Your task to perform on an android device: Search for "panasonic triple a" on costco.com, select the first entry, and add it to the cart. Image 0: 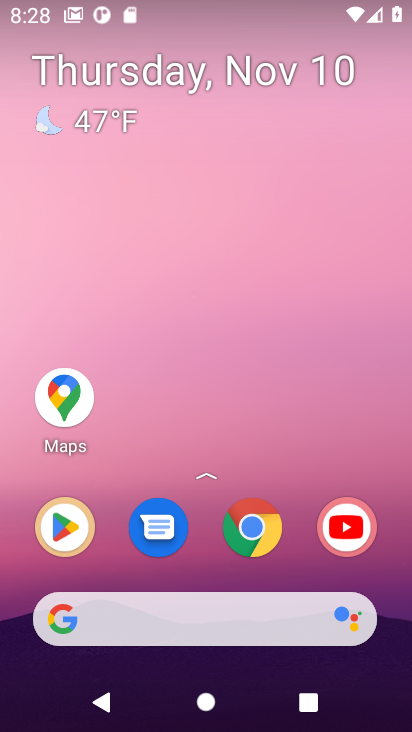
Step 0: drag from (165, 607) to (73, 13)
Your task to perform on an android device: Search for "panasonic triple a" on costco.com, select the first entry, and add it to the cart. Image 1: 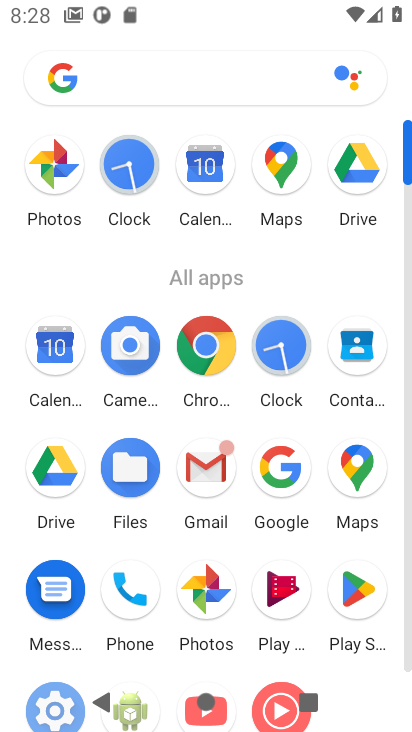
Step 1: click (207, 338)
Your task to perform on an android device: Search for "panasonic triple a" on costco.com, select the first entry, and add it to the cart. Image 2: 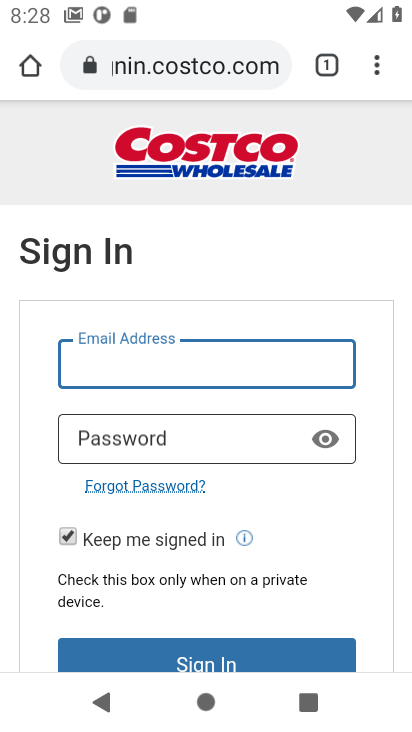
Step 2: press back button
Your task to perform on an android device: Search for "panasonic triple a" on costco.com, select the first entry, and add it to the cart. Image 3: 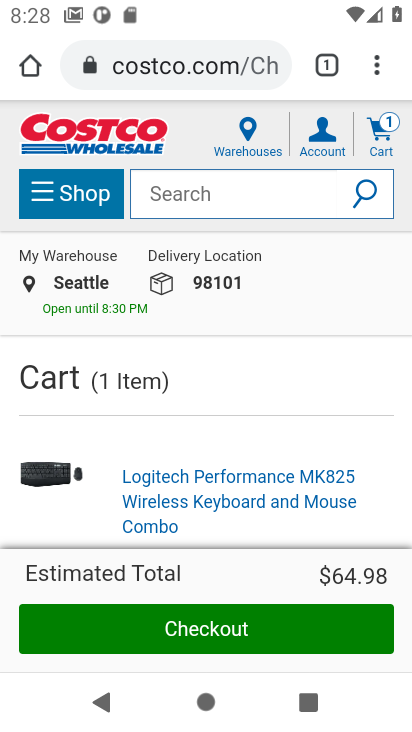
Step 3: click (199, 176)
Your task to perform on an android device: Search for "panasonic triple a" on costco.com, select the first entry, and add it to the cart. Image 4: 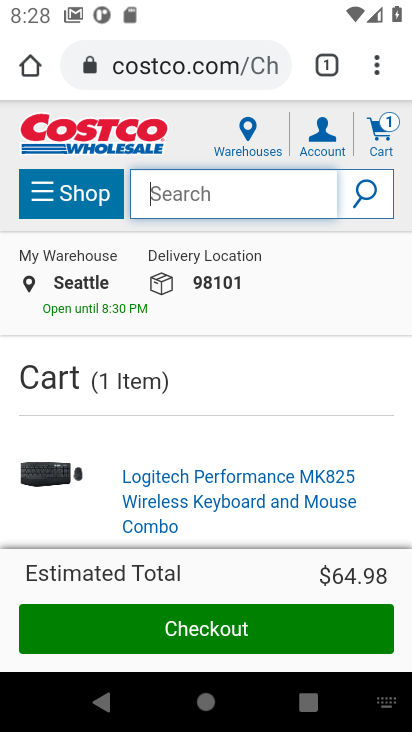
Step 4: type "panasonic triple a"
Your task to perform on an android device: Search for "panasonic triple a" on costco.com, select the first entry, and add it to the cart. Image 5: 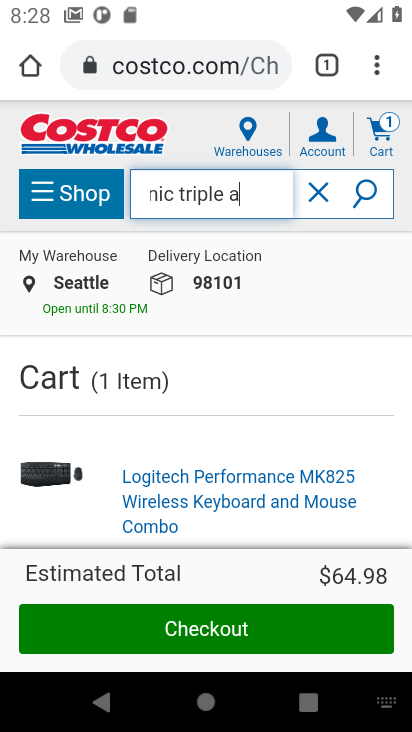
Step 5: press enter
Your task to perform on an android device: Search for "panasonic triple a" on costco.com, select the first entry, and add it to the cart. Image 6: 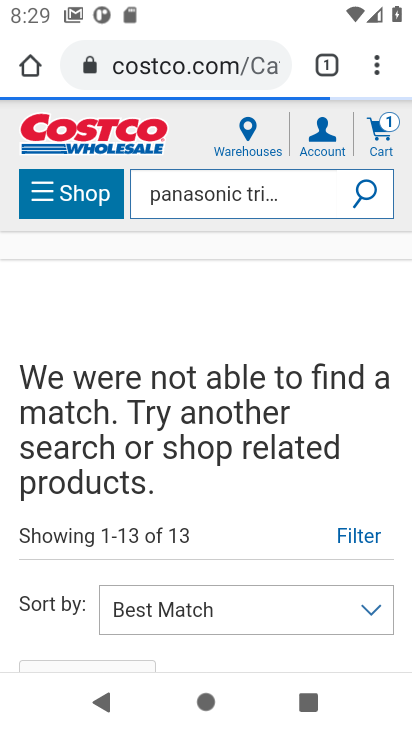
Step 6: drag from (260, 495) to (276, 223)
Your task to perform on an android device: Search for "panasonic triple a" on costco.com, select the first entry, and add it to the cart. Image 7: 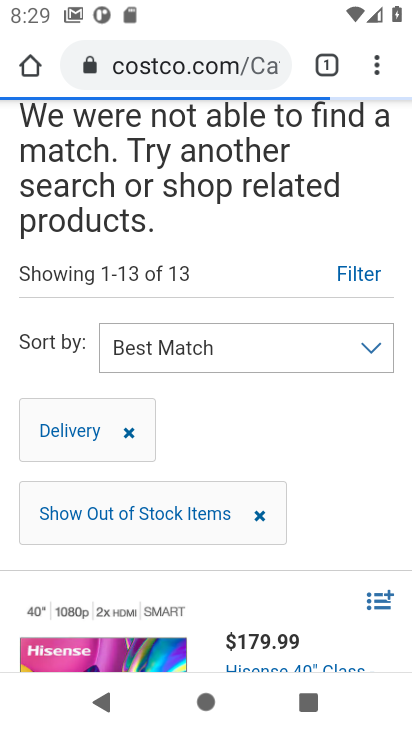
Step 7: drag from (322, 446) to (329, 174)
Your task to perform on an android device: Search for "panasonic triple a" on costco.com, select the first entry, and add it to the cart. Image 8: 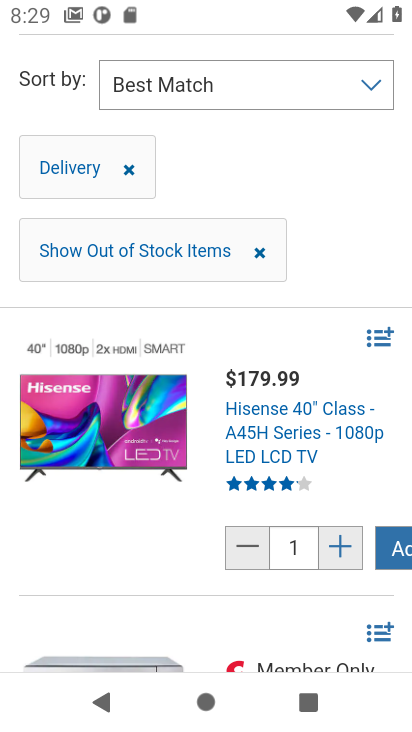
Step 8: click (393, 547)
Your task to perform on an android device: Search for "panasonic triple a" on costco.com, select the first entry, and add it to the cart. Image 9: 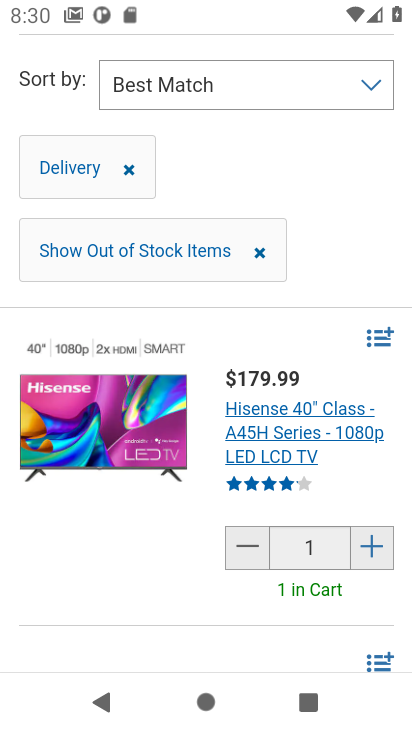
Step 9: task complete